Your task to perform on an android device: toggle priority inbox in the gmail app Image 0: 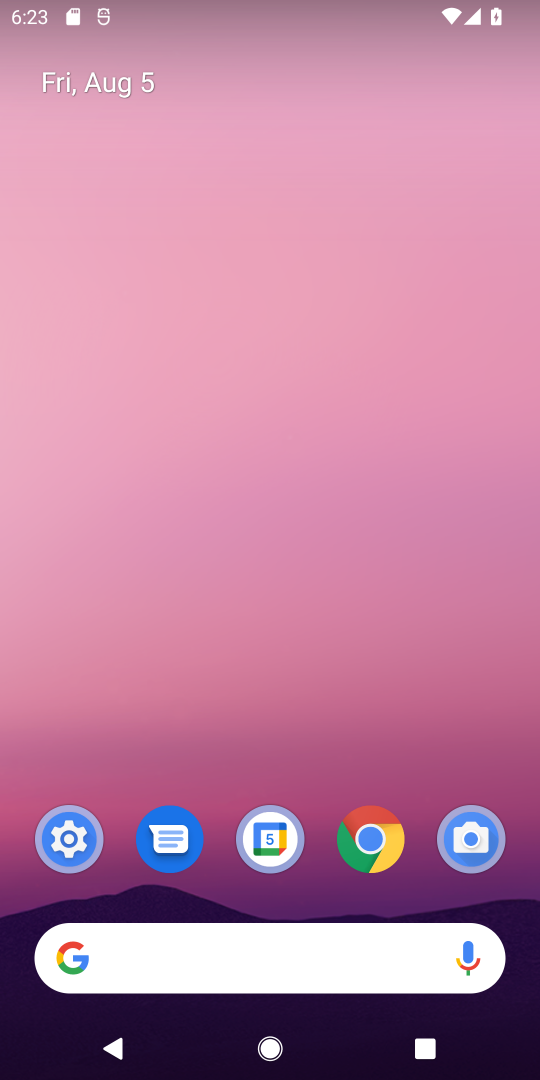
Step 0: drag from (255, 764) to (255, 391)
Your task to perform on an android device: toggle priority inbox in the gmail app Image 1: 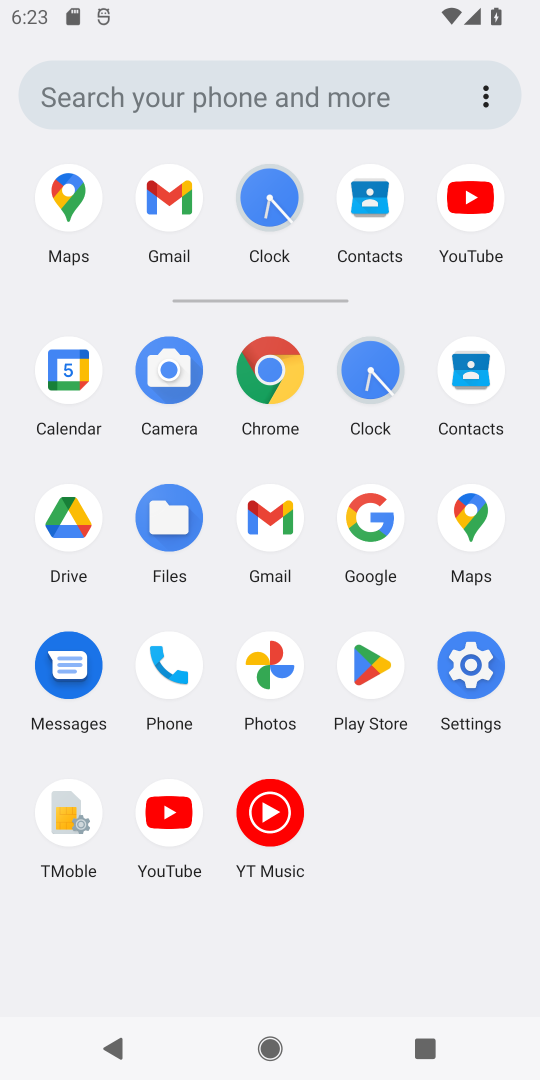
Step 1: click (153, 194)
Your task to perform on an android device: toggle priority inbox in the gmail app Image 2: 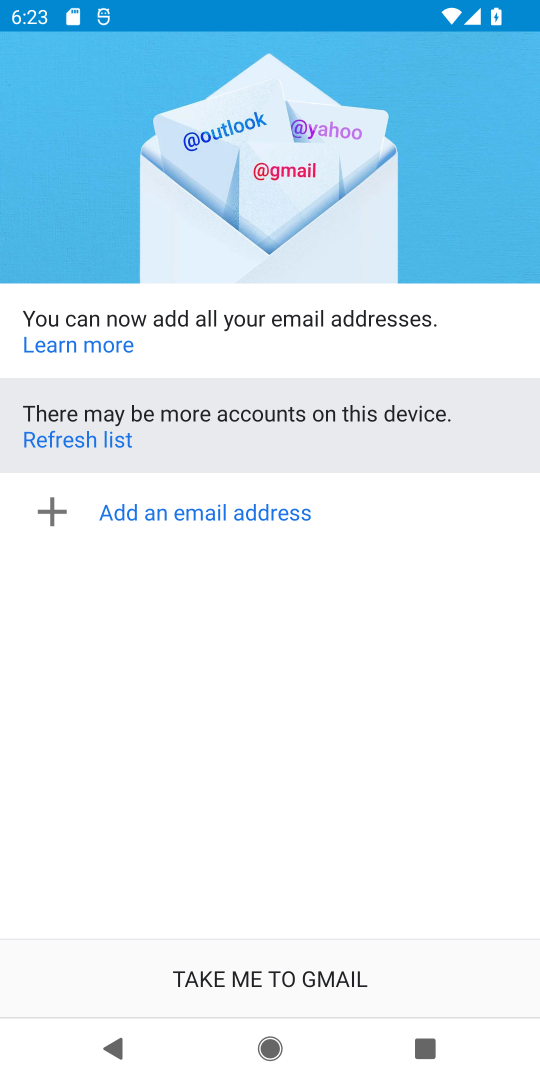
Step 2: click (297, 980)
Your task to perform on an android device: toggle priority inbox in the gmail app Image 3: 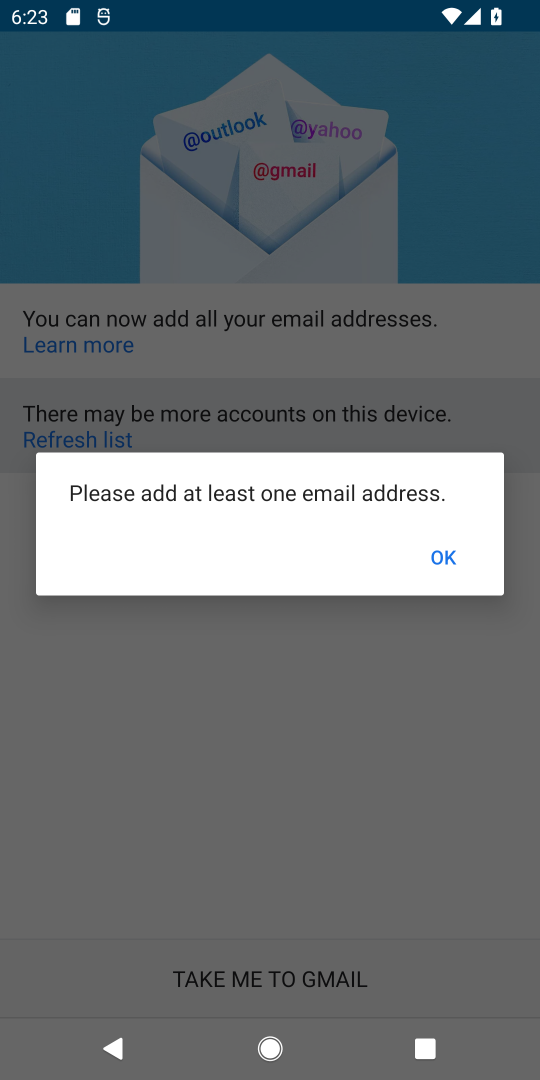
Step 3: task complete